Your task to perform on an android device: Search for "logitech g933" on costco.com, select the first entry, add it to the cart, then select checkout. Image 0: 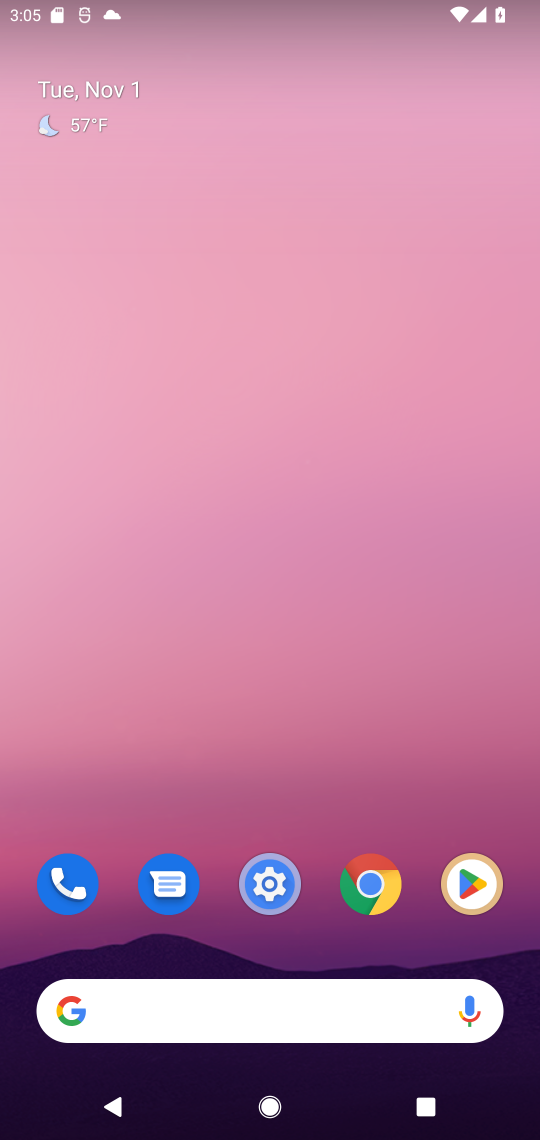
Step 0: press home button
Your task to perform on an android device: Search for "logitech g933" on costco.com, select the first entry, add it to the cart, then select checkout. Image 1: 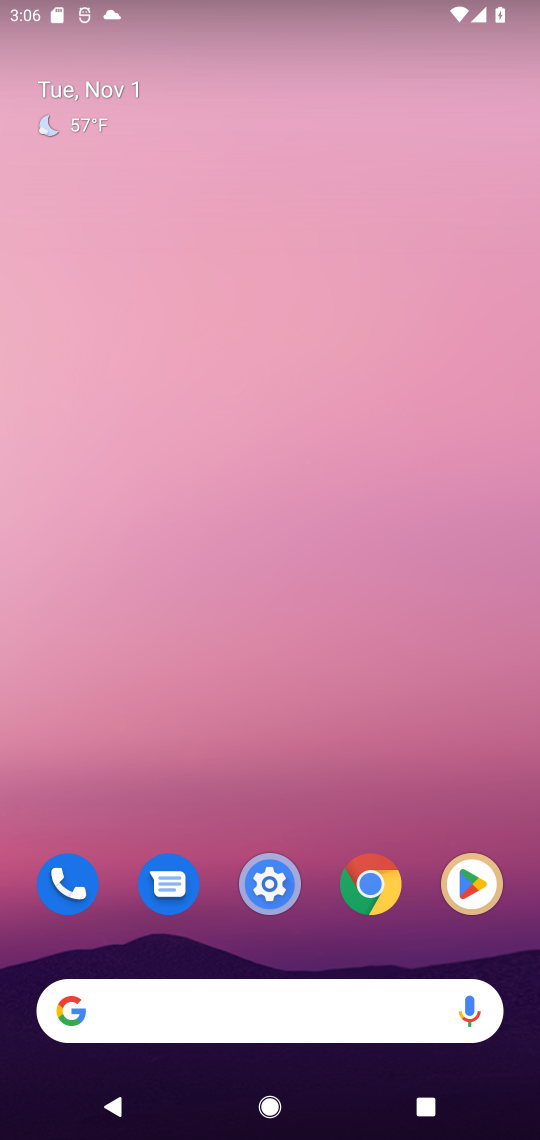
Step 1: click (108, 1007)
Your task to perform on an android device: Search for "logitech g933" on costco.com, select the first entry, add it to the cart, then select checkout. Image 2: 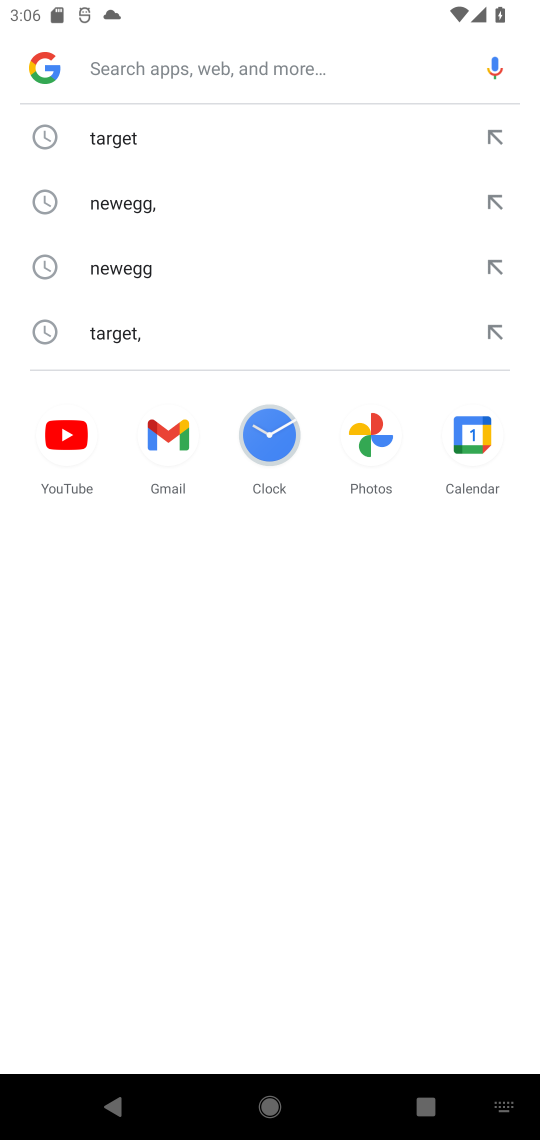
Step 2: type "costco.com,"
Your task to perform on an android device: Search for "logitech g933" on costco.com, select the first entry, add it to the cart, then select checkout. Image 3: 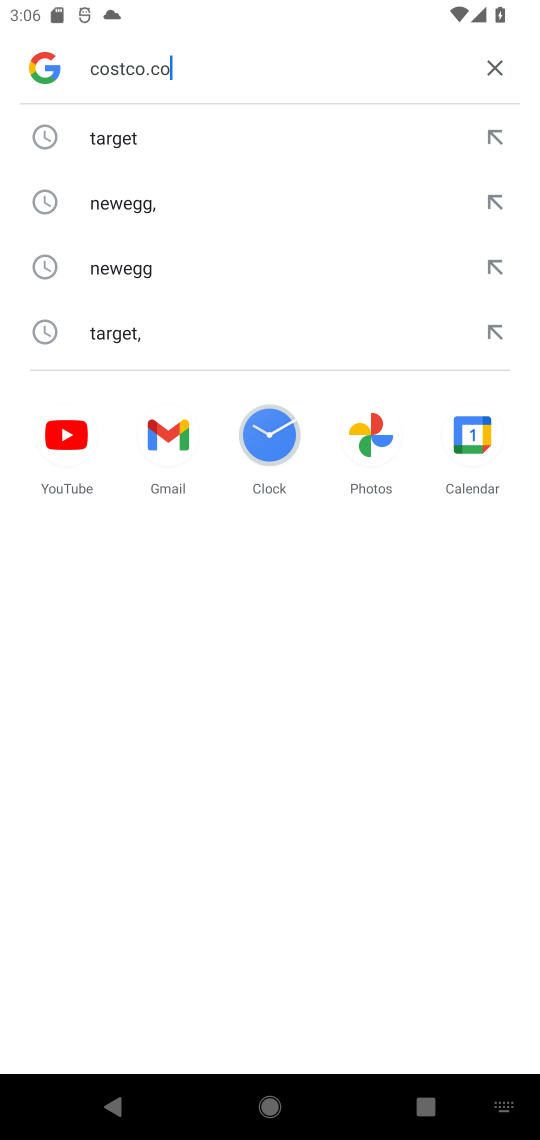
Step 3: press enter
Your task to perform on an android device: Search for "logitech g933" on costco.com, select the first entry, add it to the cart, then select checkout. Image 4: 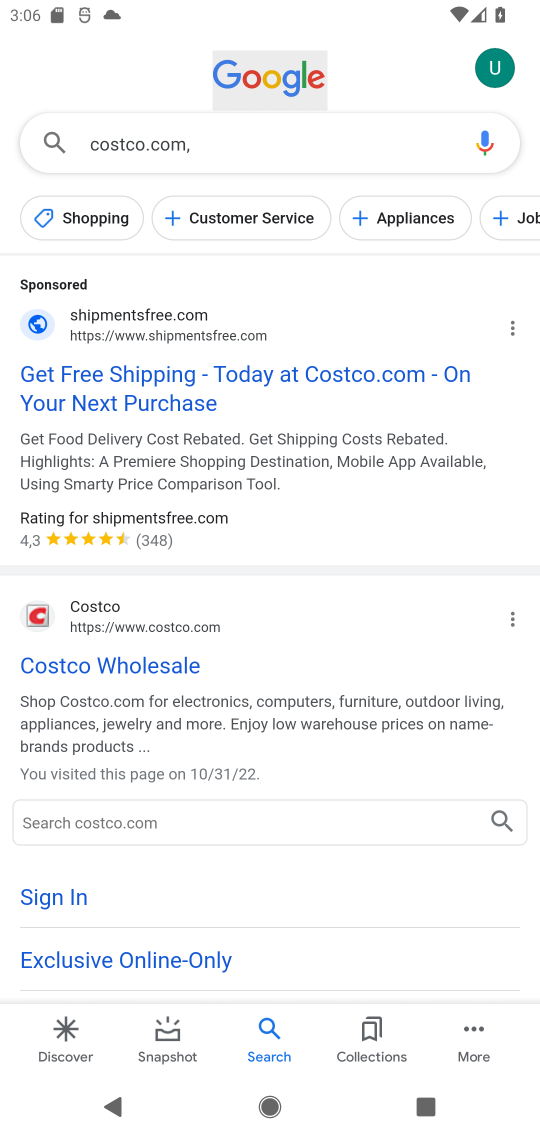
Step 4: click (148, 664)
Your task to perform on an android device: Search for "logitech g933" on costco.com, select the first entry, add it to the cart, then select checkout. Image 5: 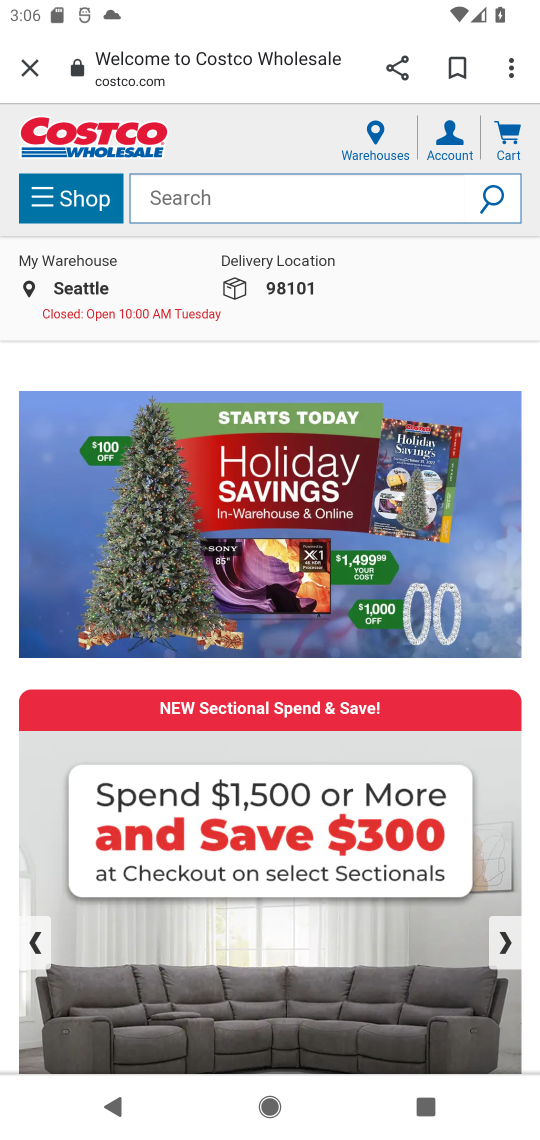
Step 5: click (216, 189)
Your task to perform on an android device: Search for "logitech g933" on costco.com, select the first entry, add it to the cart, then select checkout. Image 6: 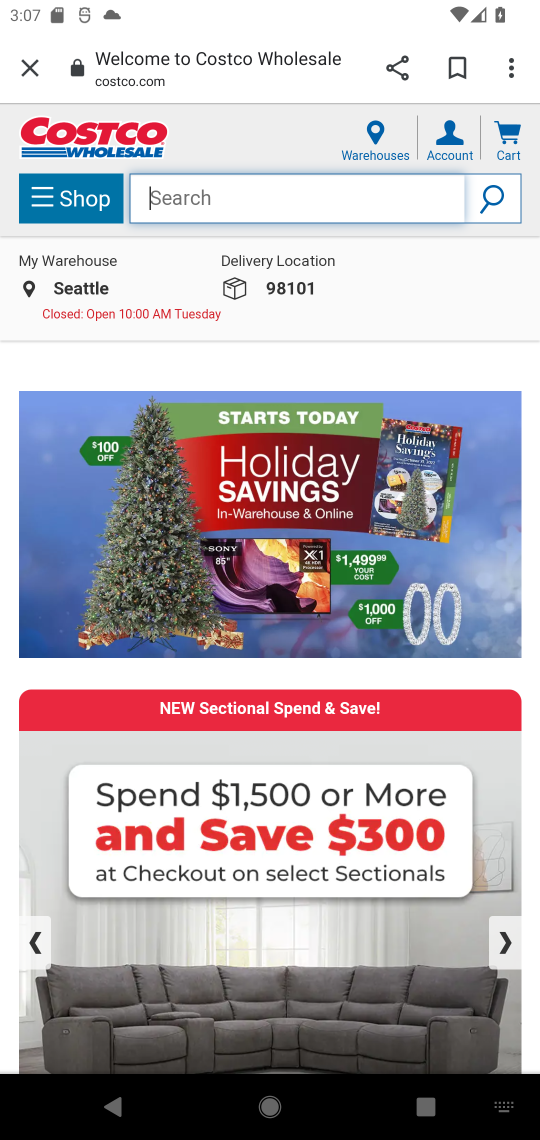
Step 6: type "logitech g933"
Your task to perform on an android device: Search for "logitech g933" on costco.com, select the first entry, add it to the cart, then select checkout. Image 7: 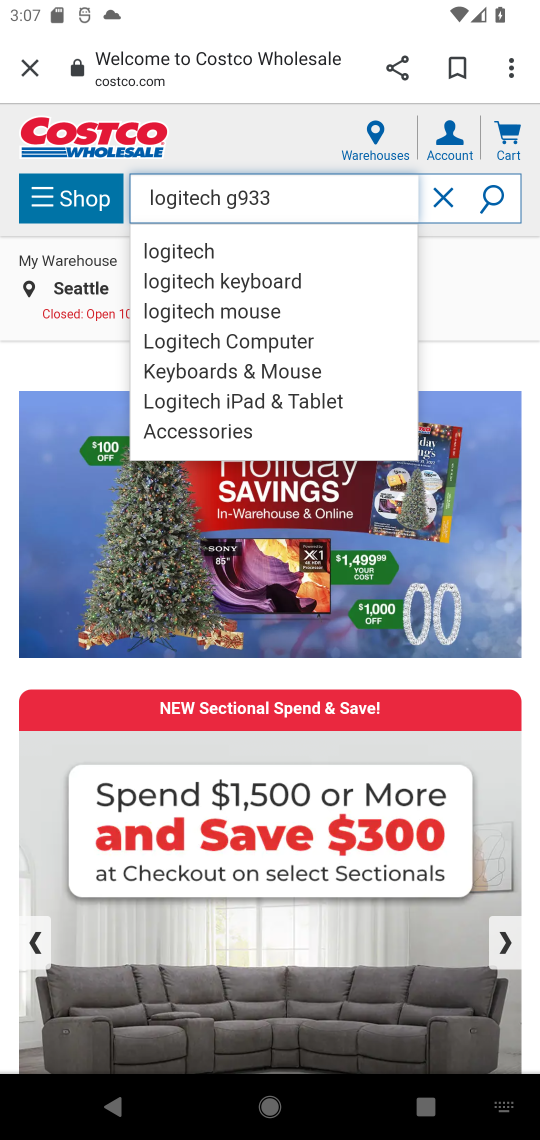
Step 7: click (491, 196)
Your task to perform on an android device: Search for "logitech g933" on costco.com, select the first entry, add it to the cart, then select checkout. Image 8: 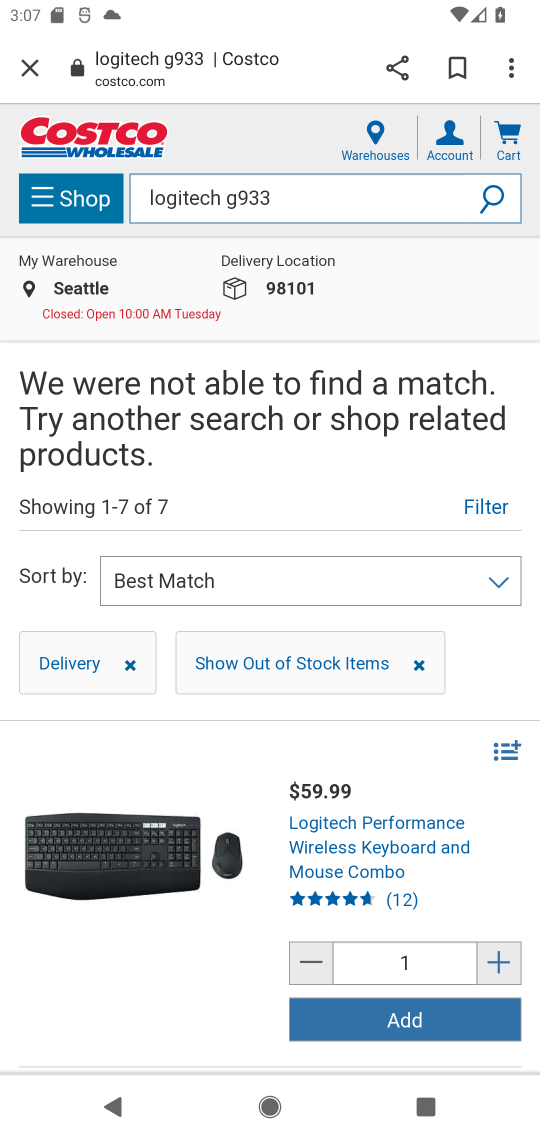
Step 8: task complete